Your task to perform on an android device: open app "HBO Max: Stream TV & Movies" (install if not already installed), go to login, and select forgot password Image 0: 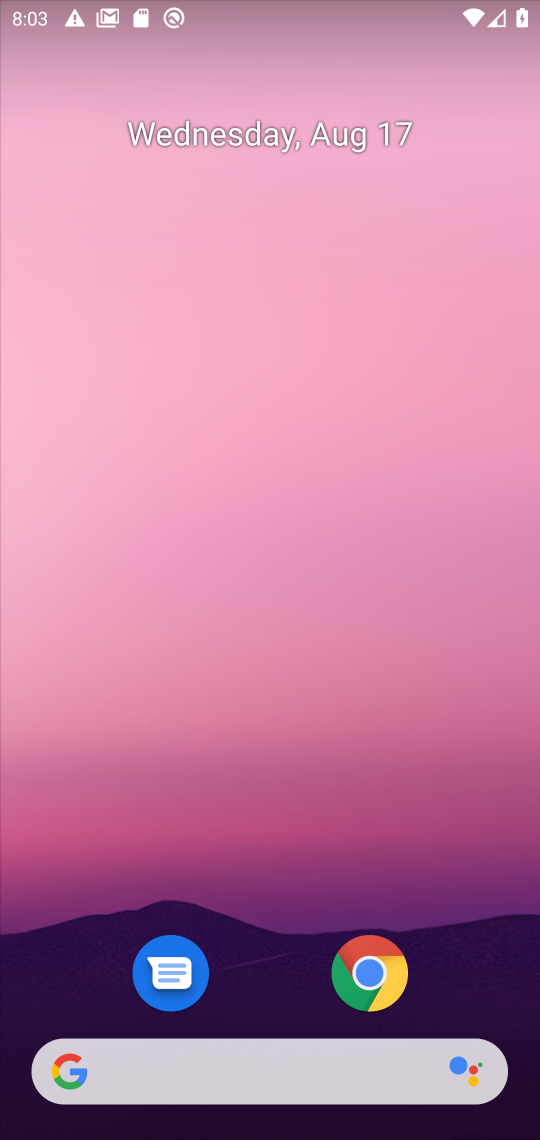
Step 0: drag from (292, 719) to (298, 275)
Your task to perform on an android device: open app "HBO Max: Stream TV & Movies" (install if not already installed), go to login, and select forgot password Image 1: 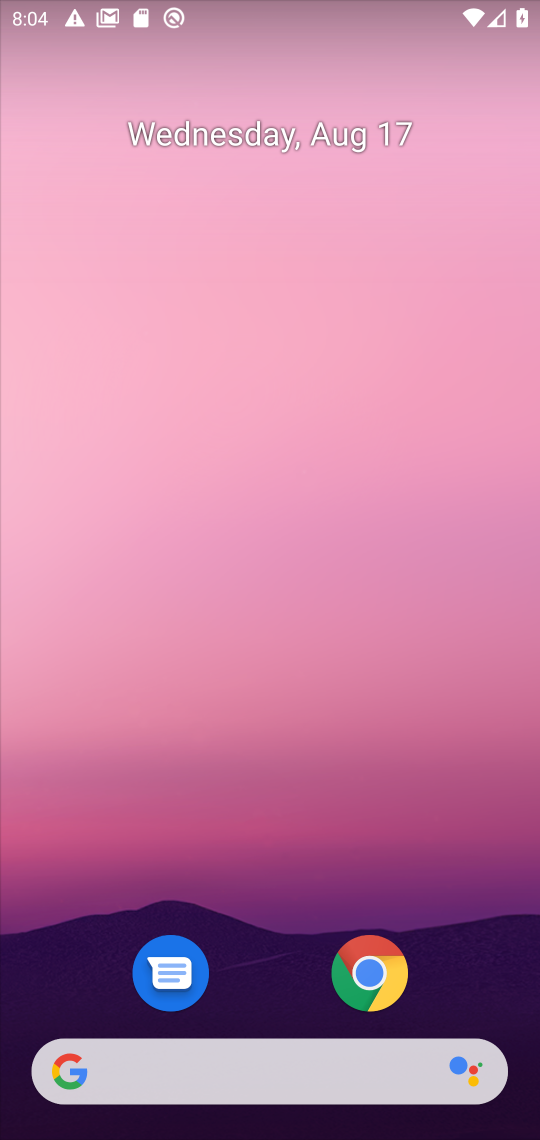
Step 1: drag from (232, 1046) to (155, 287)
Your task to perform on an android device: open app "HBO Max: Stream TV & Movies" (install if not already installed), go to login, and select forgot password Image 2: 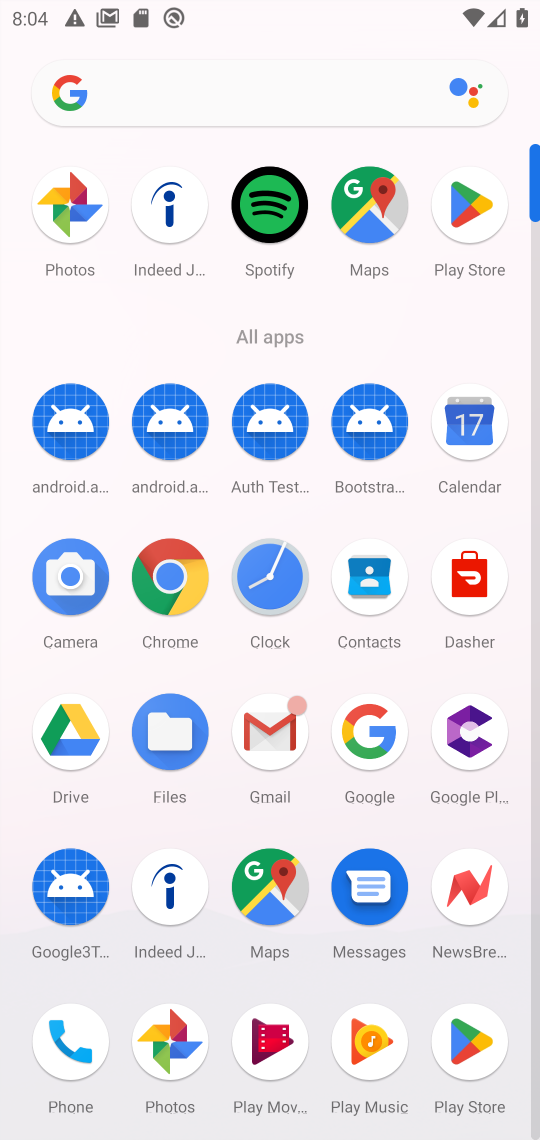
Step 2: click (452, 243)
Your task to perform on an android device: open app "HBO Max: Stream TV & Movies" (install if not already installed), go to login, and select forgot password Image 3: 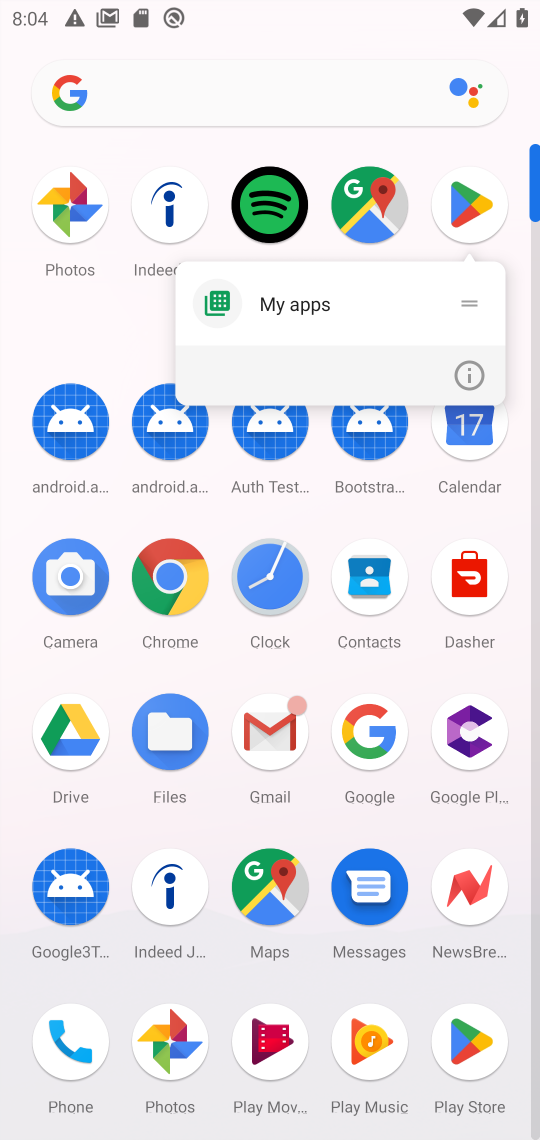
Step 3: click (469, 203)
Your task to perform on an android device: open app "HBO Max: Stream TV & Movies" (install if not already installed), go to login, and select forgot password Image 4: 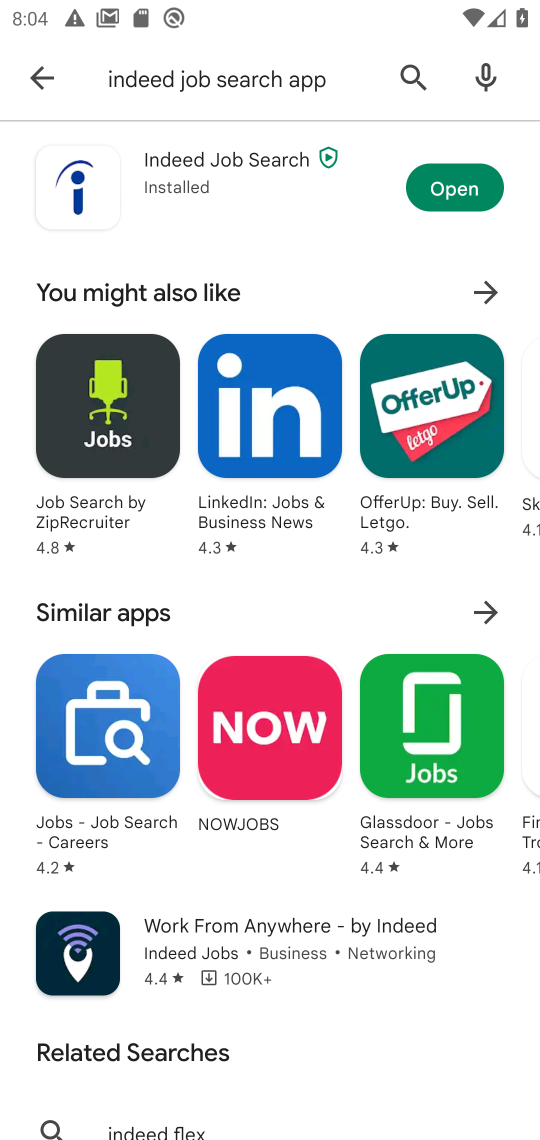
Step 4: click (40, 81)
Your task to perform on an android device: open app "HBO Max: Stream TV & Movies" (install if not already installed), go to login, and select forgot password Image 5: 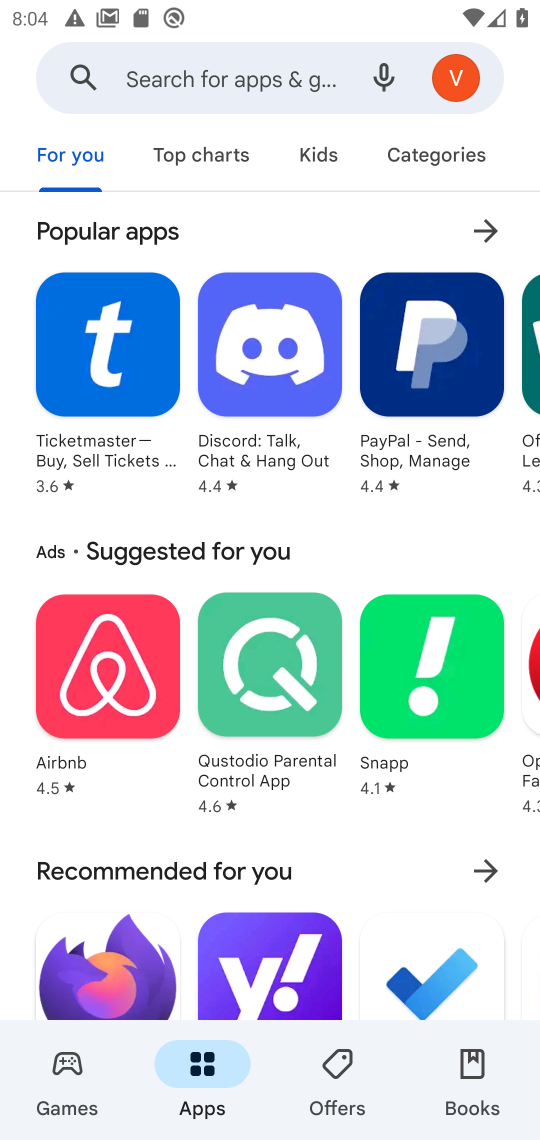
Step 5: click (265, 82)
Your task to perform on an android device: open app "HBO Max: Stream TV & Movies" (install if not already installed), go to login, and select forgot password Image 6: 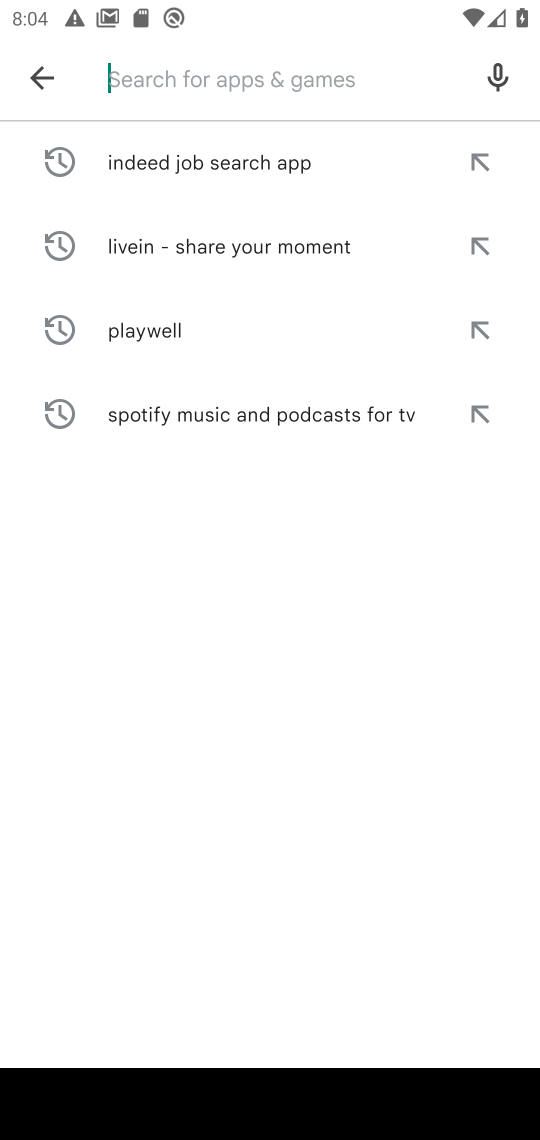
Step 6: type "HBO Max: Stream TV & Movies"
Your task to perform on an android device: open app "HBO Max: Stream TV & Movies" (install if not already installed), go to login, and select forgot password Image 7: 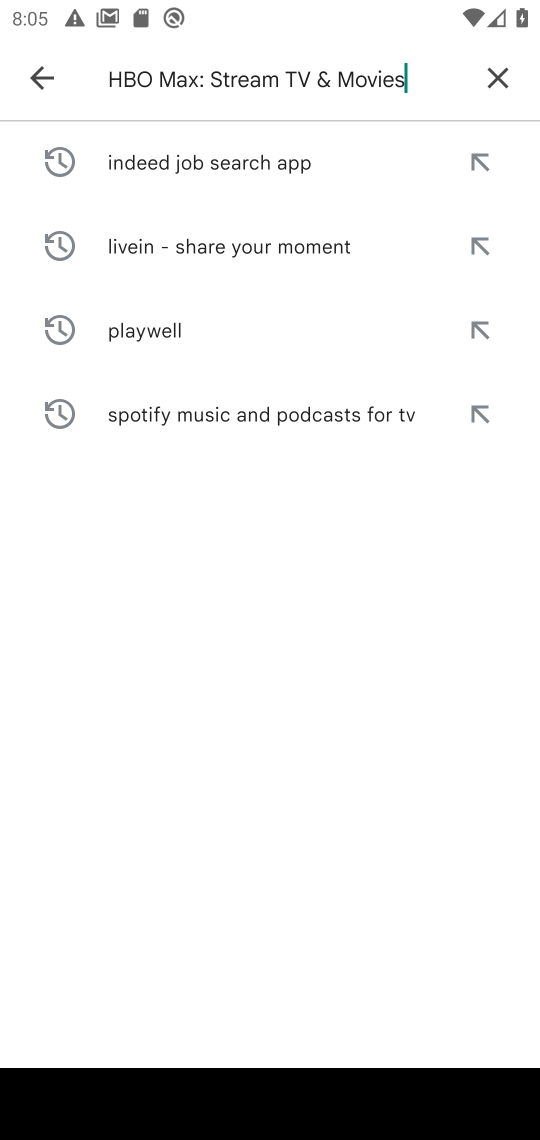
Step 7: type ""
Your task to perform on an android device: open app "HBO Max: Stream TV & Movies" (install if not already installed), go to login, and select forgot password Image 8: 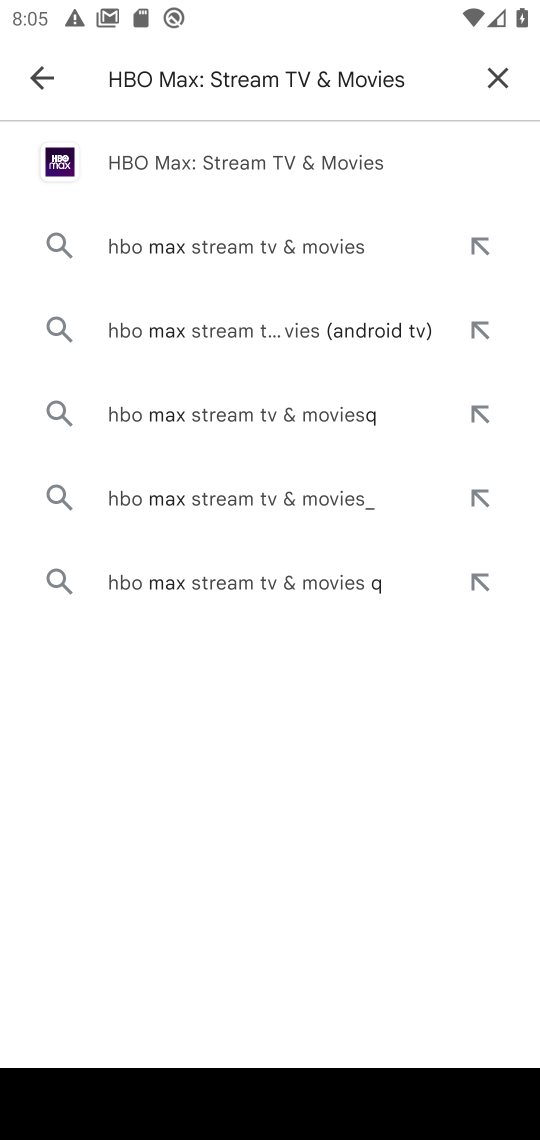
Step 8: click (409, 178)
Your task to perform on an android device: open app "HBO Max: Stream TV & Movies" (install if not already installed), go to login, and select forgot password Image 9: 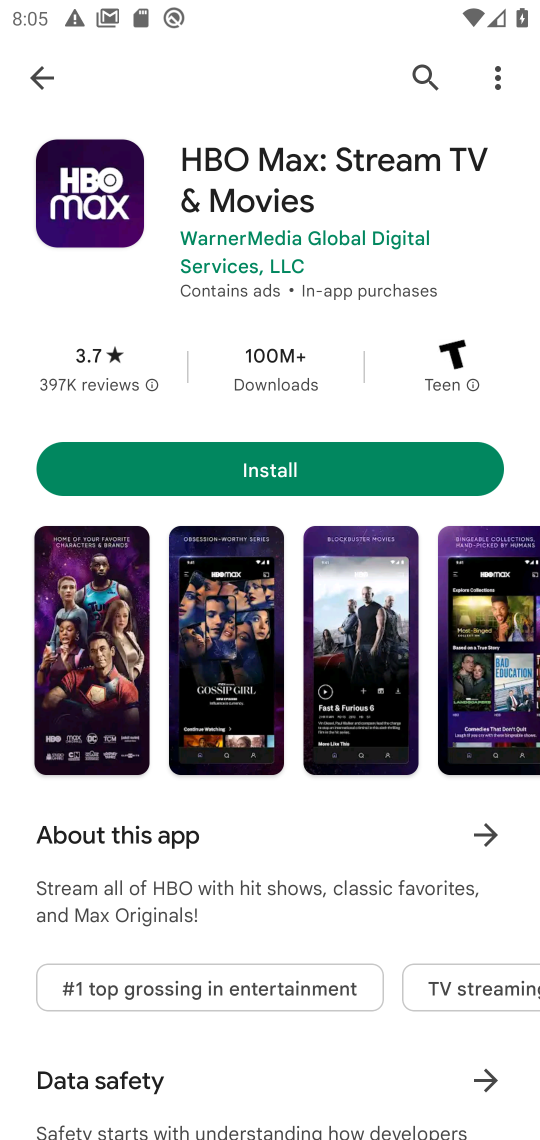
Step 9: click (353, 446)
Your task to perform on an android device: open app "HBO Max: Stream TV & Movies" (install if not already installed), go to login, and select forgot password Image 10: 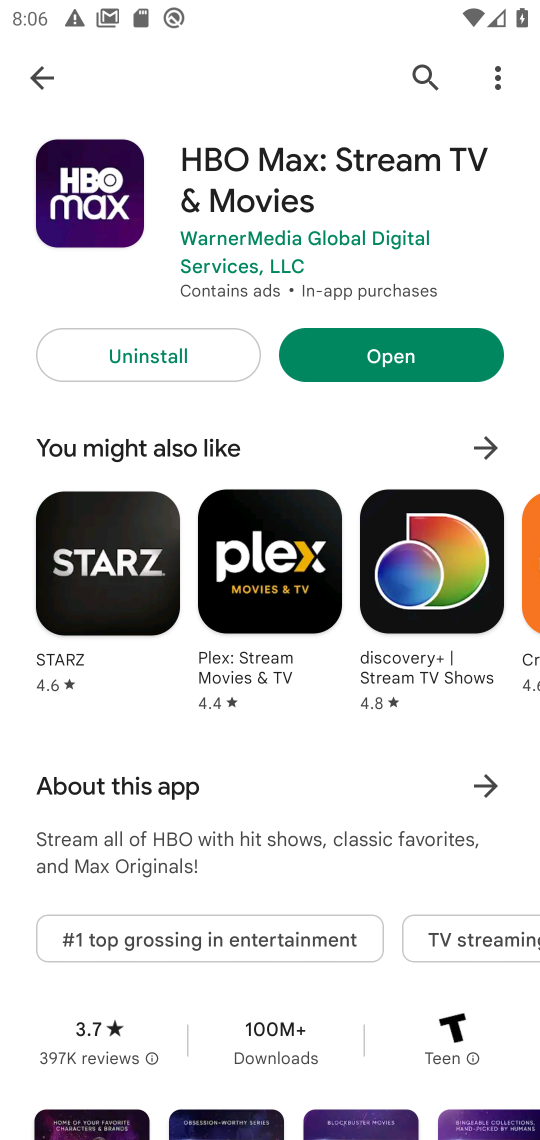
Step 10: click (386, 359)
Your task to perform on an android device: open app "HBO Max: Stream TV & Movies" (install if not already installed), go to login, and select forgot password Image 11: 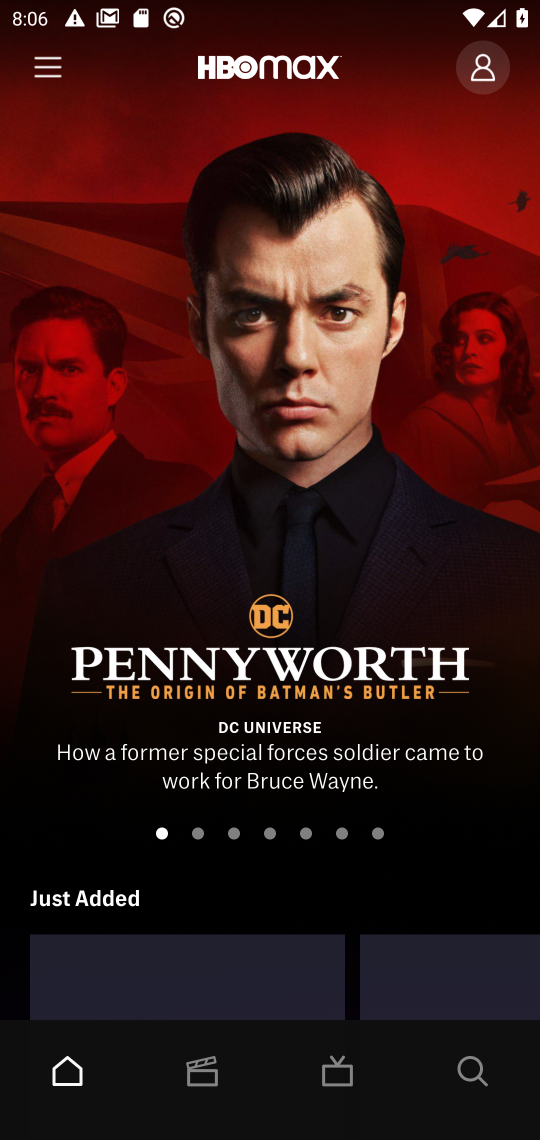
Step 11: task complete